Your task to perform on an android device: Go to calendar. Show me events next week Image 0: 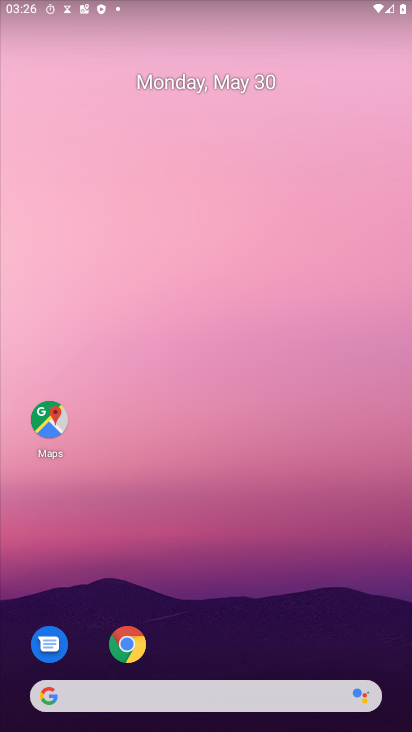
Step 0: press home button
Your task to perform on an android device: Go to calendar. Show me events next week Image 1: 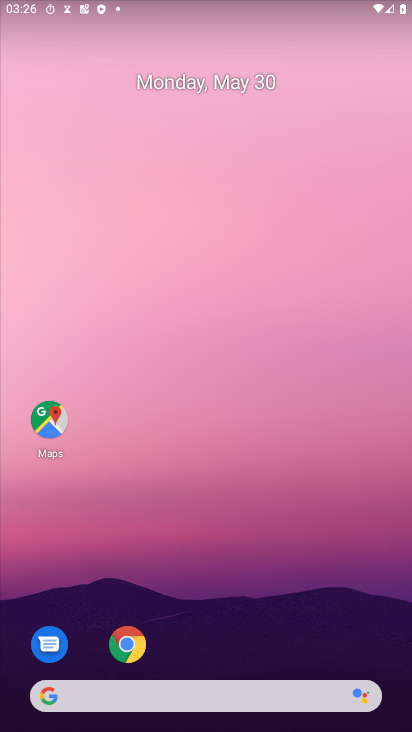
Step 1: drag from (264, 649) to (260, 324)
Your task to perform on an android device: Go to calendar. Show me events next week Image 2: 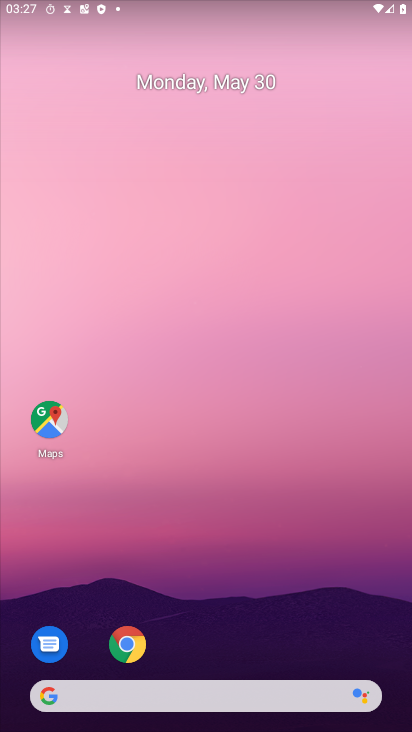
Step 2: drag from (285, 565) to (259, 146)
Your task to perform on an android device: Go to calendar. Show me events next week Image 3: 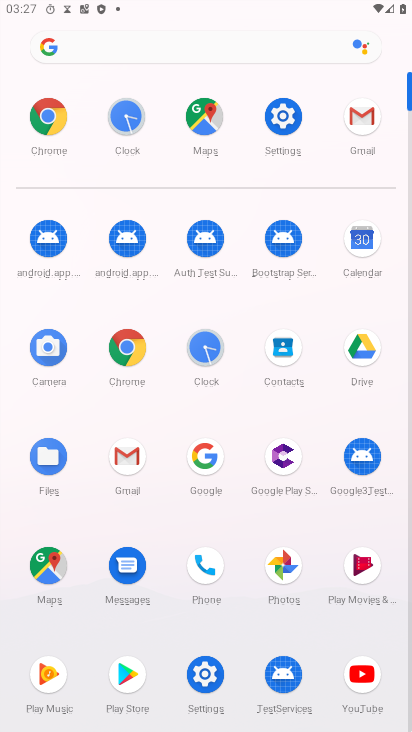
Step 3: click (356, 251)
Your task to perform on an android device: Go to calendar. Show me events next week Image 4: 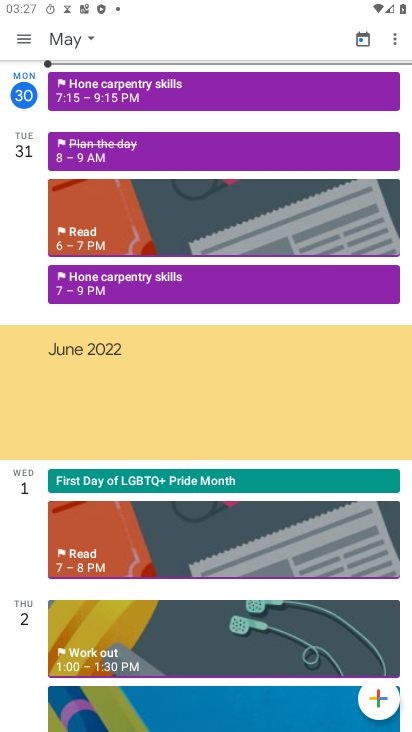
Step 4: click (28, 38)
Your task to perform on an android device: Go to calendar. Show me events next week Image 5: 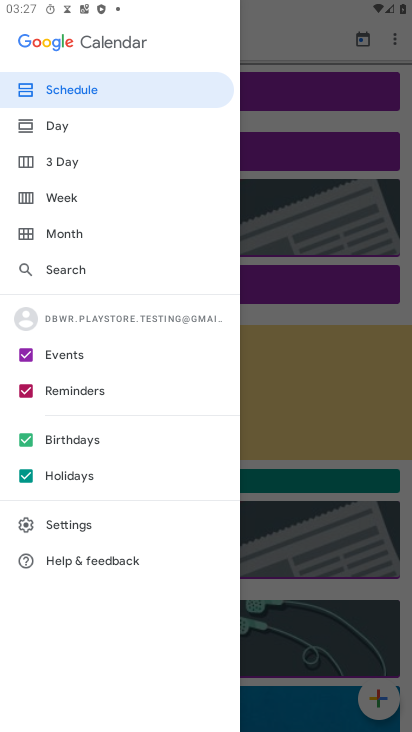
Step 5: click (69, 355)
Your task to perform on an android device: Go to calendar. Show me events next week Image 6: 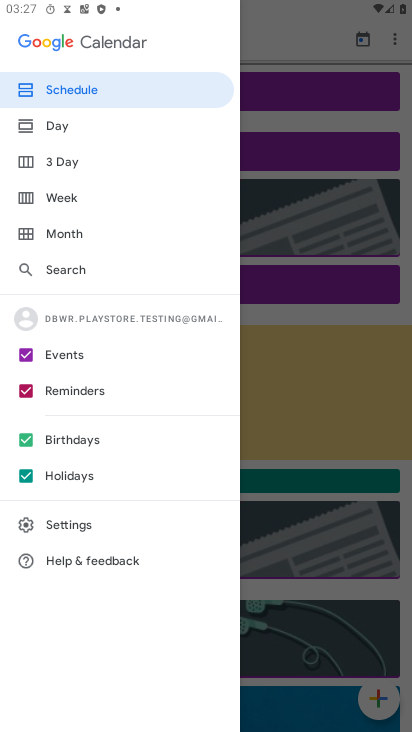
Step 6: click (69, 354)
Your task to perform on an android device: Go to calendar. Show me events next week Image 7: 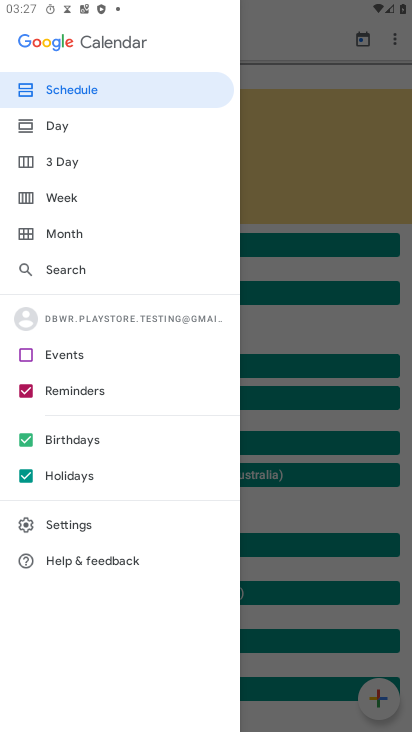
Step 7: click (69, 354)
Your task to perform on an android device: Go to calendar. Show me events next week Image 8: 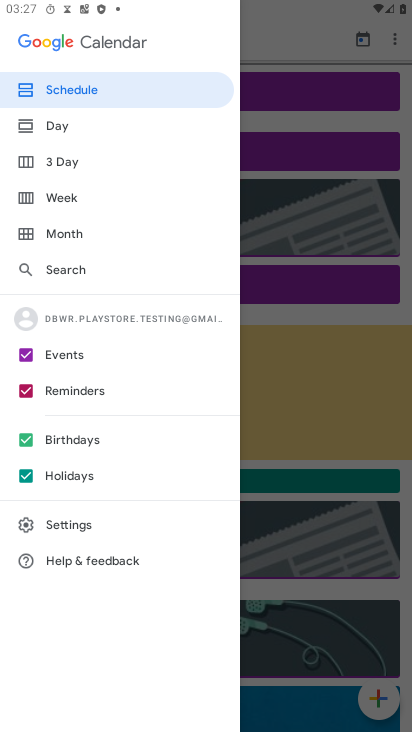
Step 8: click (264, 330)
Your task to perform on an android device: Go to calendar. Show me events next week Image 9: 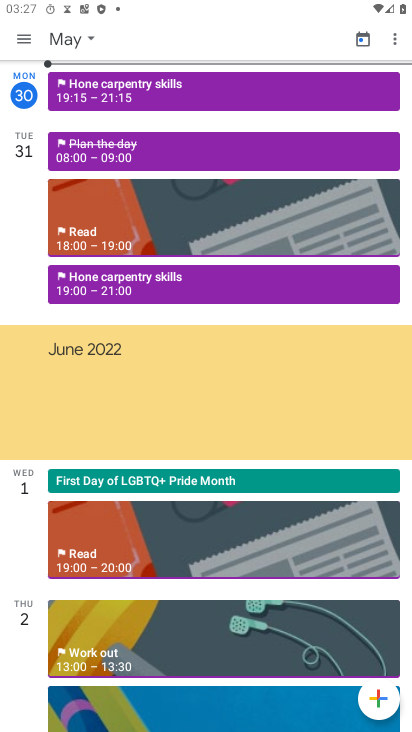
Step 9: task complete